Your task to perform on an android device: turn off smart reply in the gmail app Image 0: 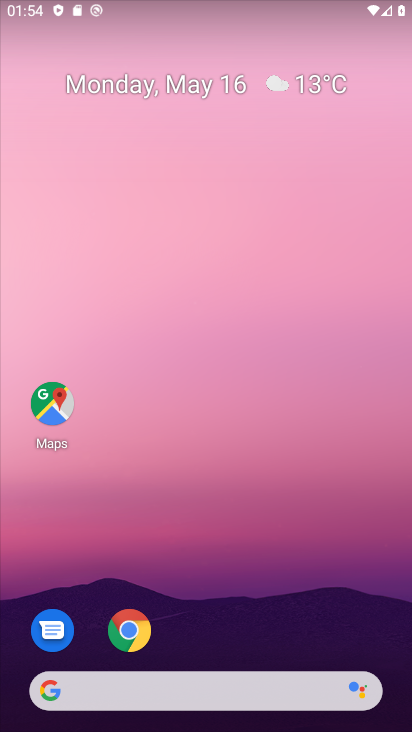
Step 0: drag from (243, 627) to (269, 222)
Your task to perform on an android device: turn off smart reply in the gmail app Image 1: 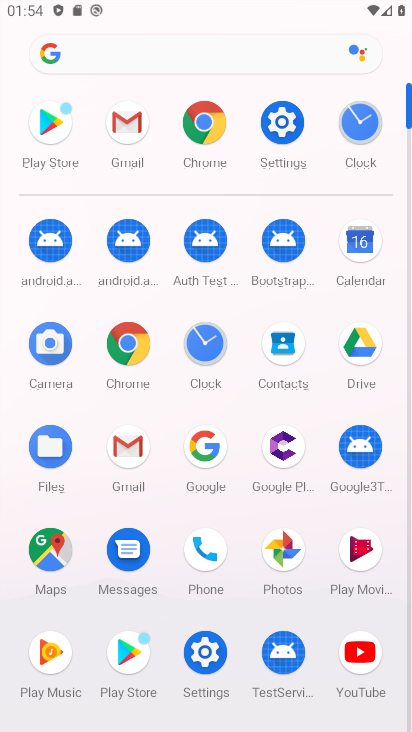
Step 1: click (141, 442)
Your task to perform on an android device: turn off smart reply in the gmail app Image 2: 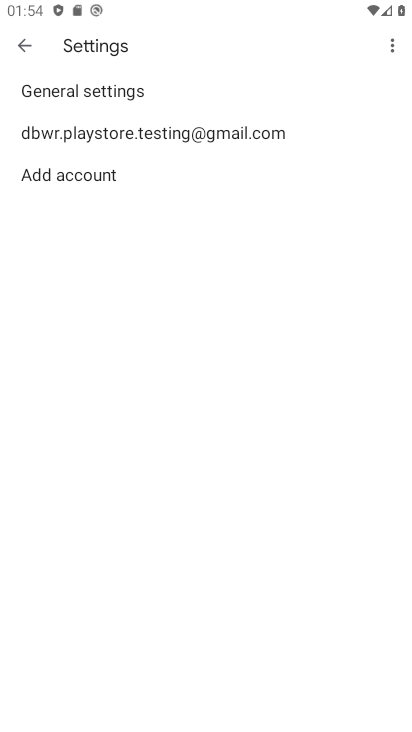
Step 2: click (129, 135)
Your task to perform on an android device: turn off smart reply in the gmail app Image 3: 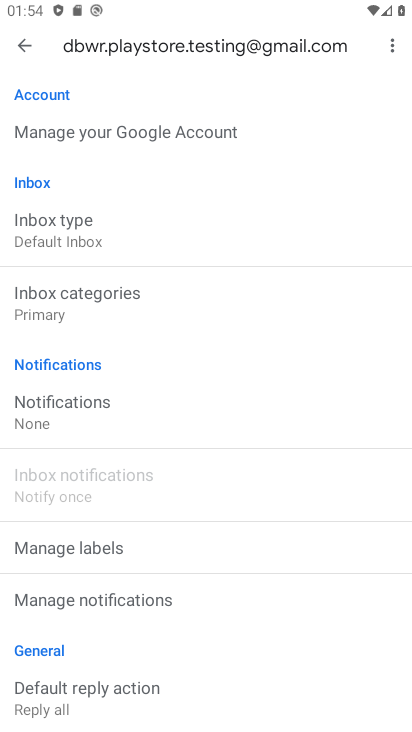
Step 3: drag from (120, 647) to (144, 249)
Your task to perform on an android device: turn off smart reply in the gmail app Image 4: 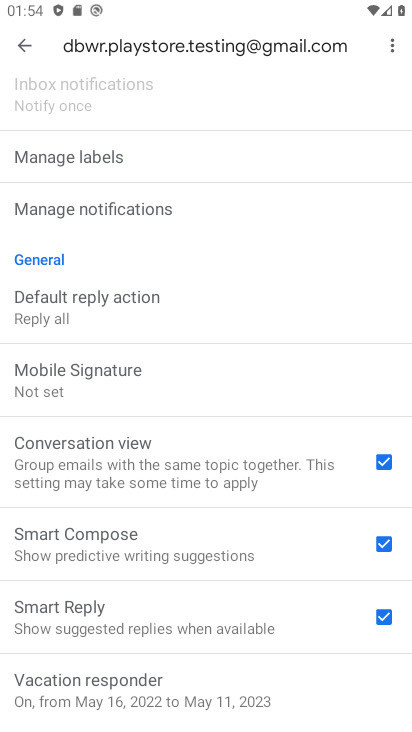
Step 4: click (387, 626)
Your task to perform on an android device: turn off smart reply in the gmail app Image 5: 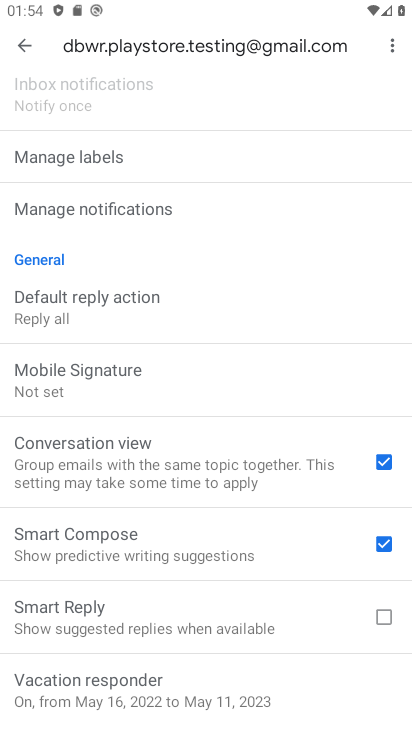
Step 5: task complete